Your task to perform on an android device: toggle wifi Image 0: 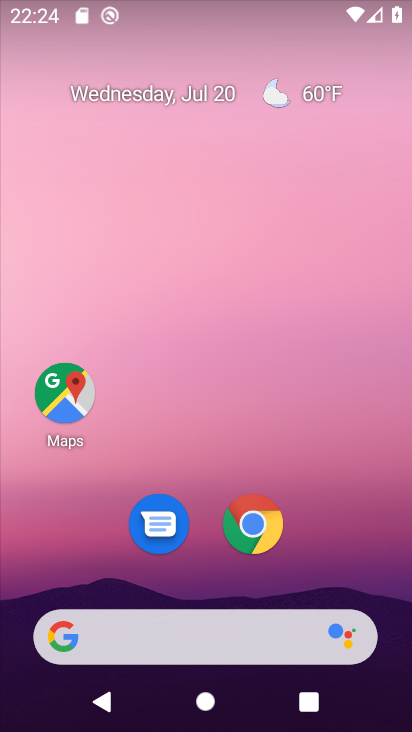
Step 0: drag from (329, 532) to (298, 48)
Your task to perform on an android device: toggle wifi Image 1: 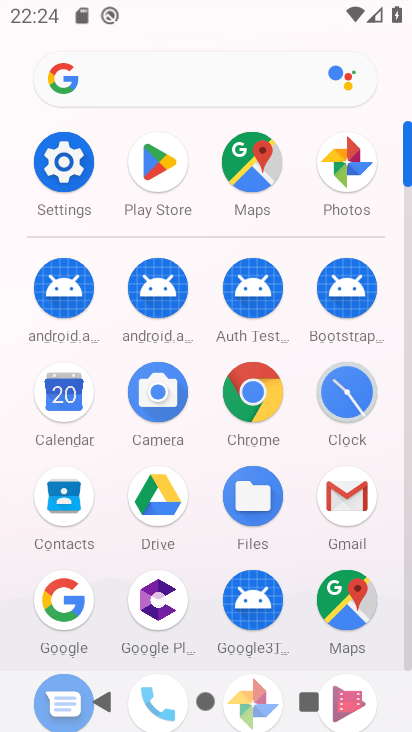
Step 1: click (81, 168)
Your task to perform on an android device: toggle wifi Image 2: 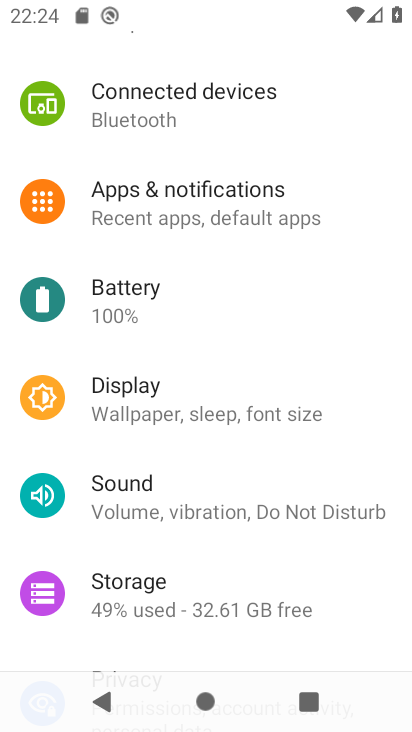
Step 2: drag from (268, 145) to (273, 599)
Your task to perform on an android device: toggle wifi Image 3: 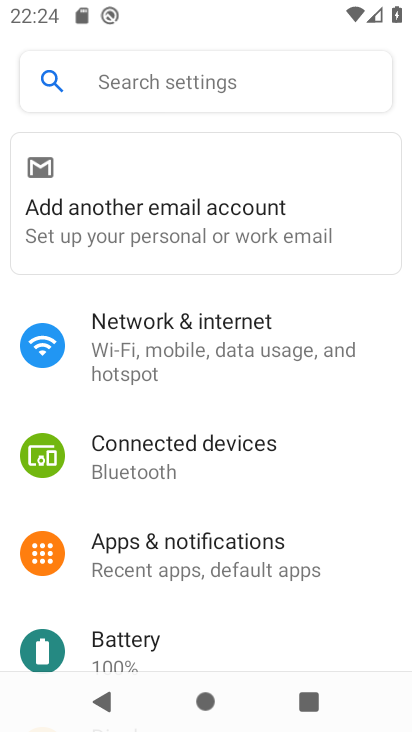
Step 3: click (249, 339)
Your task to perform on an android device: toggle wifi Image 4: 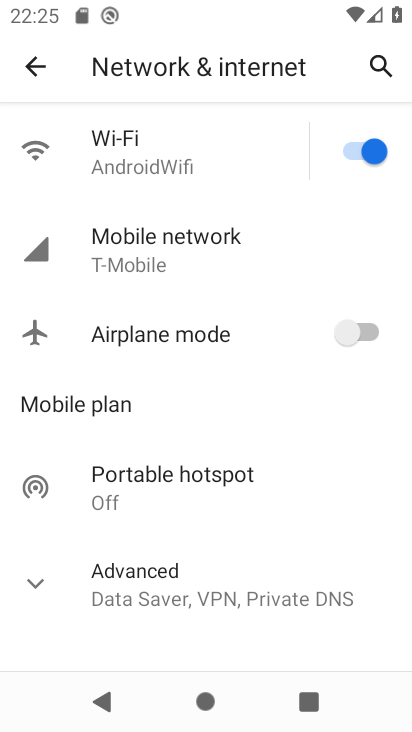
Step 4: click (359, 148)
Your task to perform on an android device: toggle wifi Image 5: 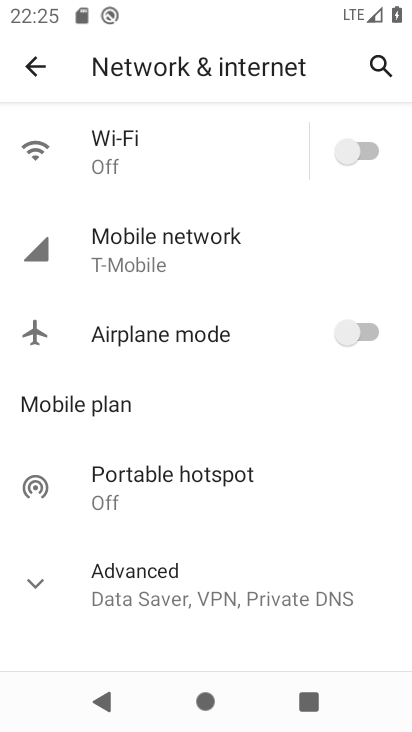
Step 5: task complete